Your task to perform on an android device: Open settings Image 0: 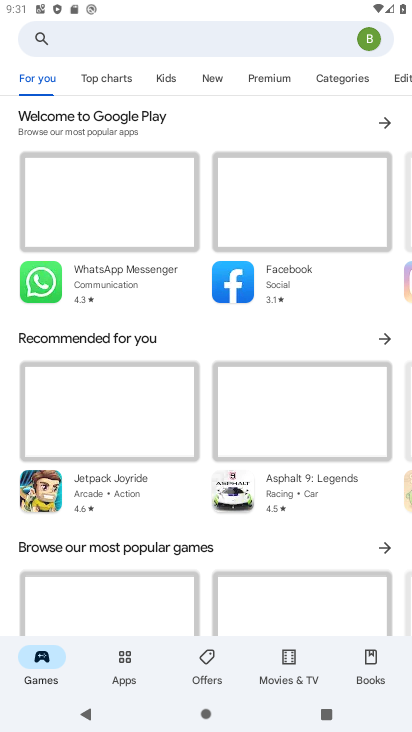
Step 0: press home button
Your task to perform on an android device: Open settings Image 1: 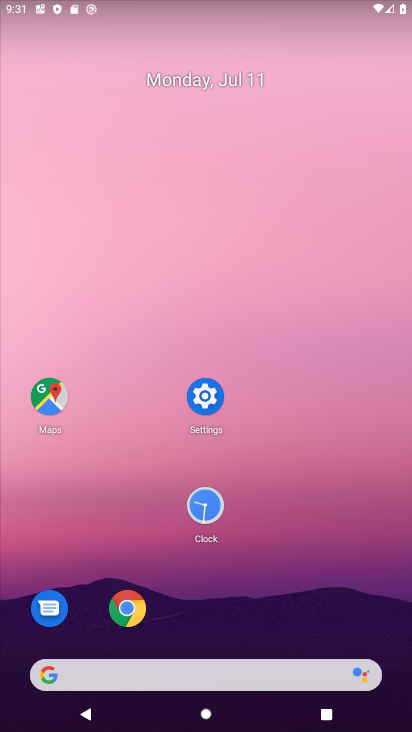
Step 1: click (203, 383)
Your task to perform on an android device: Open settings Image 2: 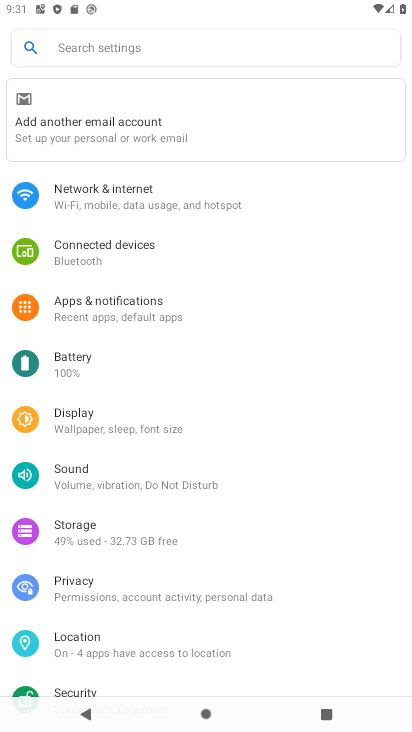
Step 2: task complete